Your task to perform on an android device: Open maps Image 0: 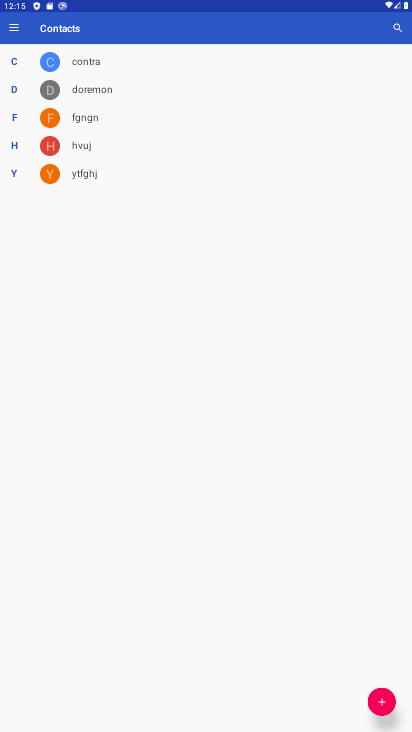
Step 0: press home button
Your task to perform on an android device: Open maps Image 1: 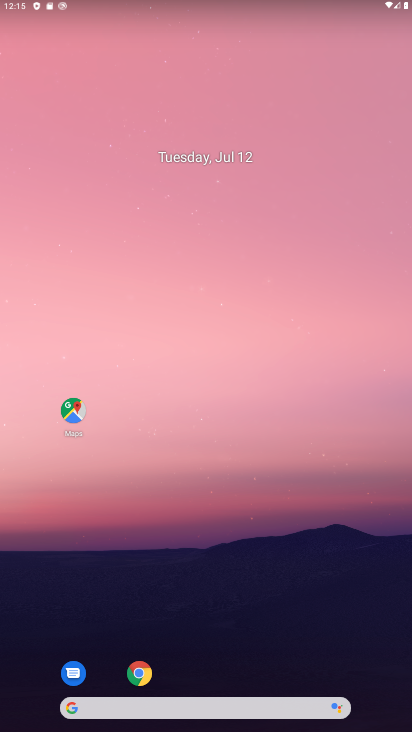
Step 1: drag from (287, 651) to (236, 190)
Your task to perform on an android device: Open maps Image 2: 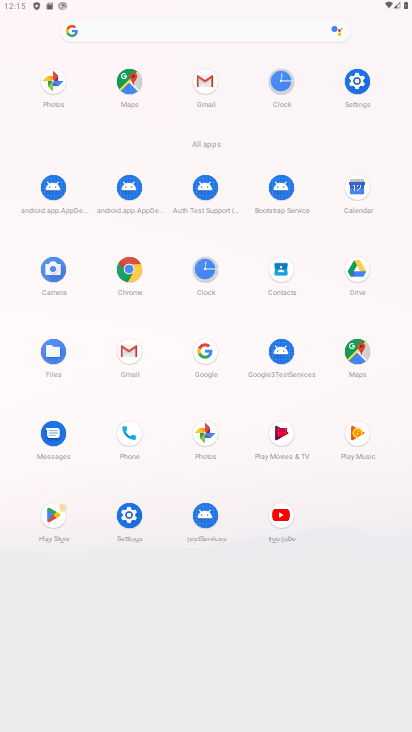
Step 2: click (133, 78)
Your task to perform on an android device: Open maps Image 3: 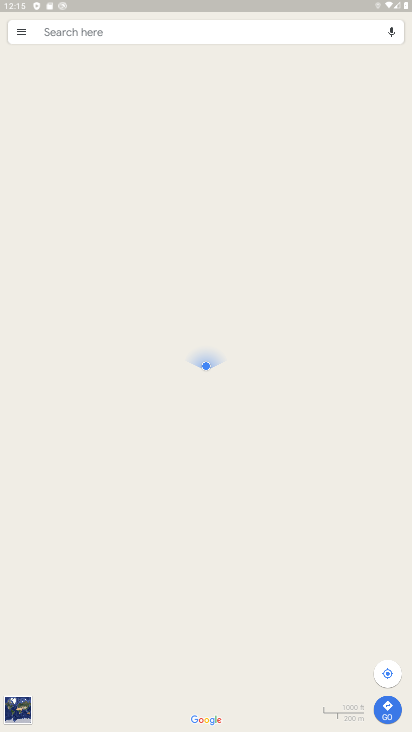
Step 3: task complete